Your task to perform on an android device: turn on priority inbox in the gmail app Image 0: 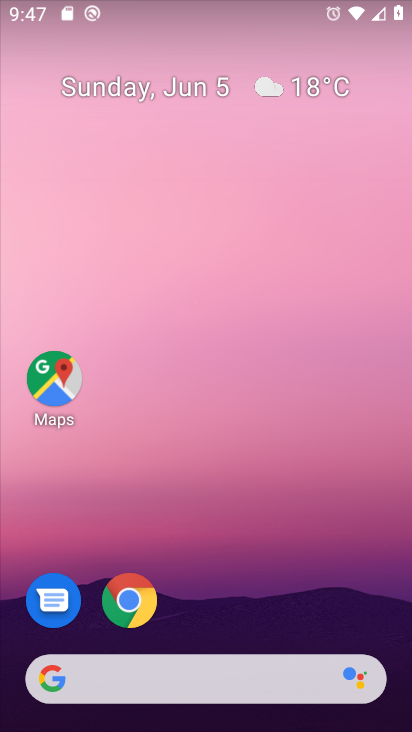
Step 0: drag from (229, 558) to (246, 33)
Your task to perform on an android device: turn on priority inbox in the gmail app Image 1: 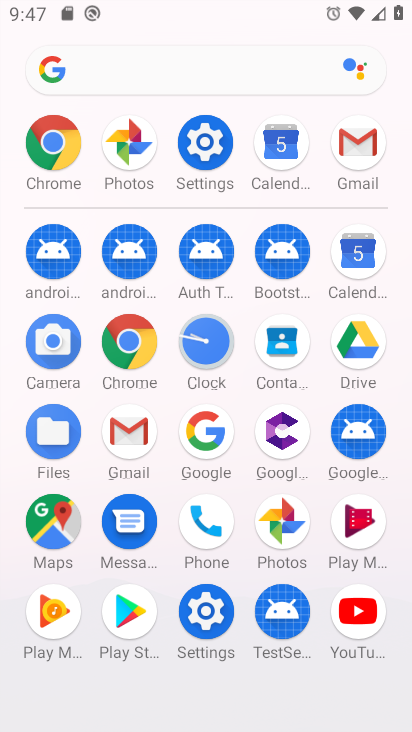
Step 1: click (344, 144)
Your task to perform on an android device: turn on priority inbox in the gmail app Image 2: 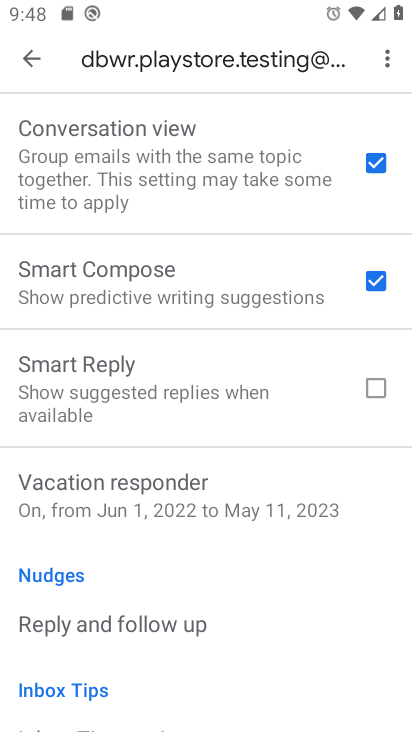
Step 2: task complete